Your task to perform on an android device: turn off data saver in the chrome app Image 0: 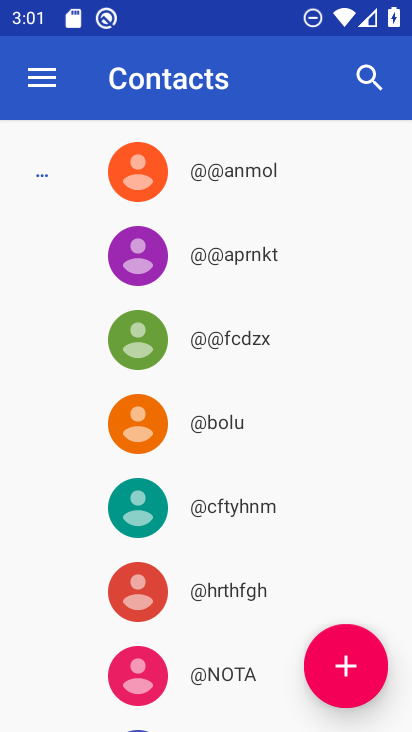
Step 0: press home button
Your task to perform on an android device: turn off data saver in the chrome app Image 1: 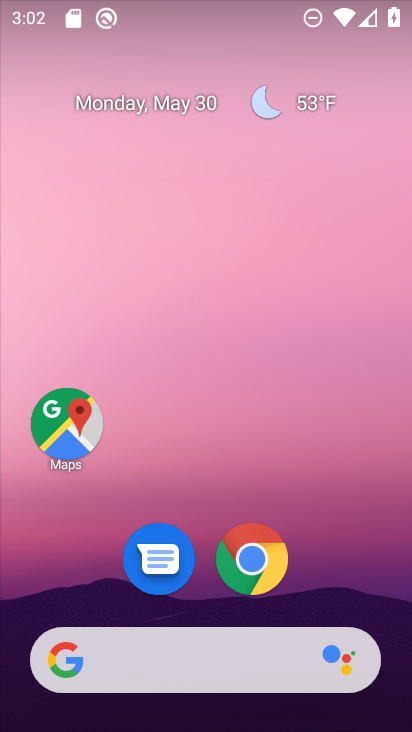
Step 1: click (262, 561)
Your task to perform on an android device: turn off data saver in the chrome app Image 2: 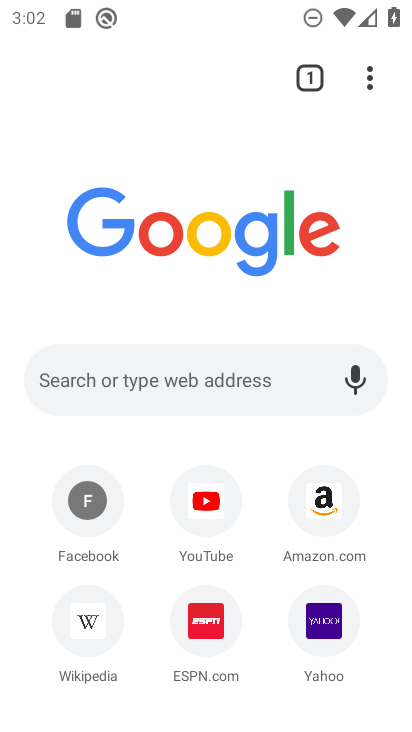
Step 2: drag from (372, 76) to (163, 620)
Your task to perform on an android device: turn off data saver in the chrome app Image 3: 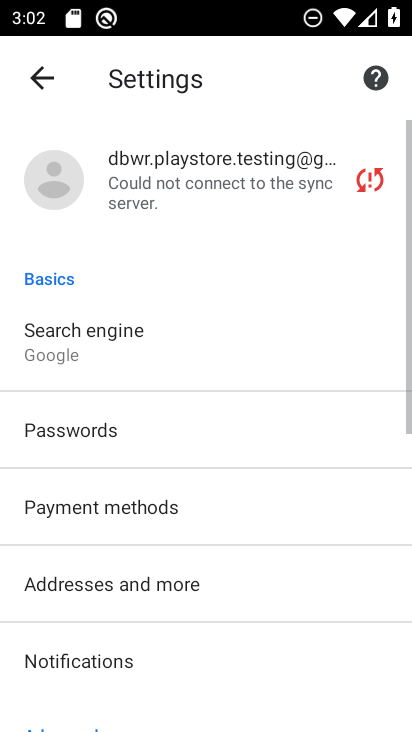
Step 3: drag from (178, 643) to (249, 191)
Your task to perform on an android device: turn off data saver in the chrome app Image 4: 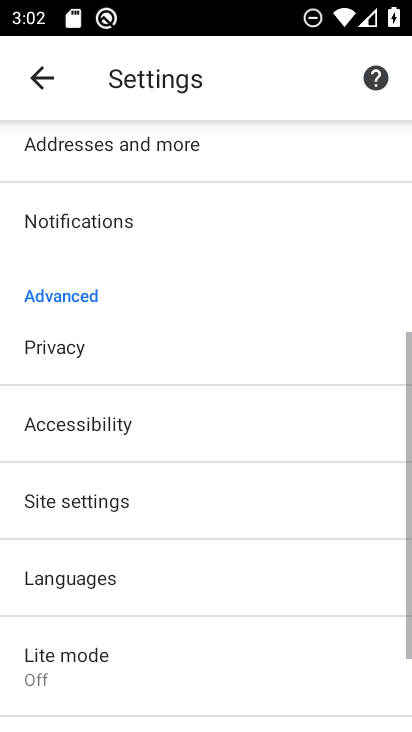
Step 4: drag from (181, 600) to (212, 401)
Your task to perform on an android device: turn off data saver in the chrome app Image 5: 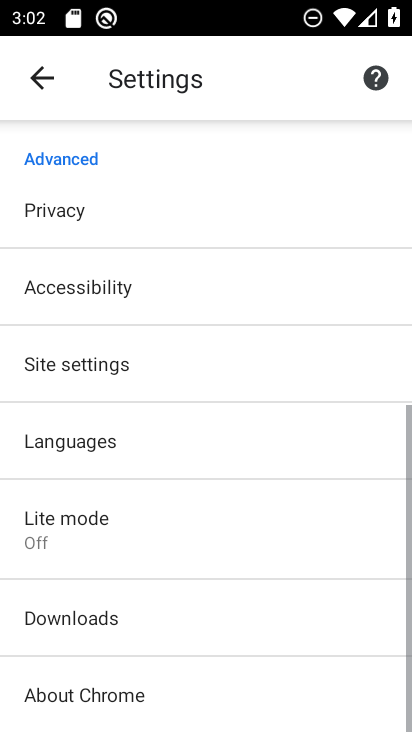
Step 5: click (184, 489)
Your task to perform on an android device: turn off data saver in the chrome app Image 6: 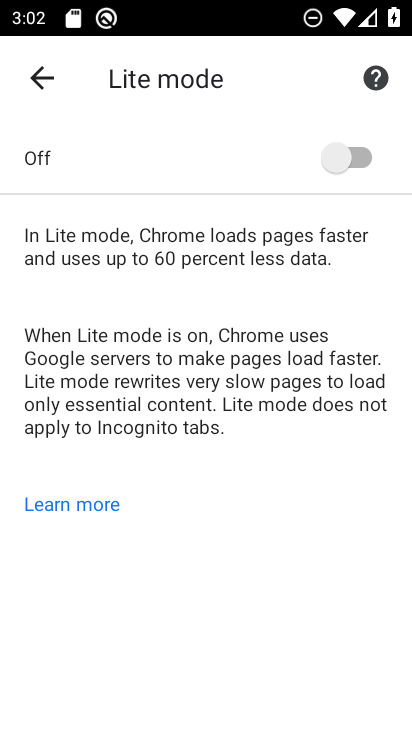
Step 6: task complete